Your task to perform on an android device: turn on the 24-hour format for clock Image 0: 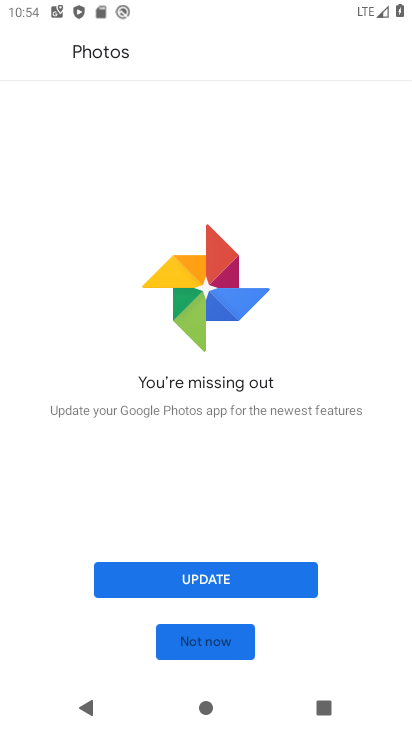
Step 0: press back button
Your task to perform on an android device: turn on the 24-hour format for clock Image 1: 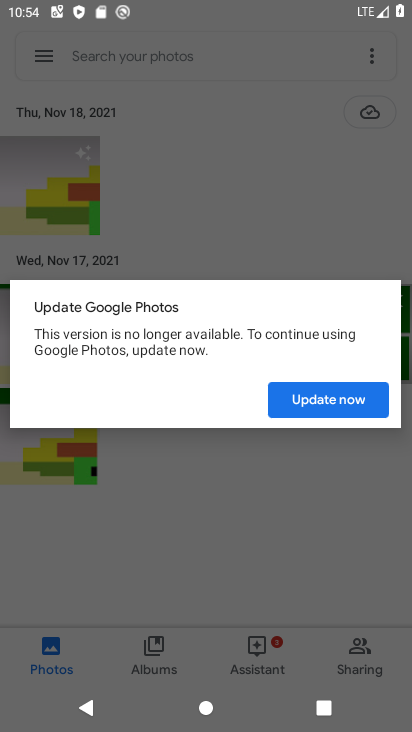
Step 1: press back button
Your task to perform on an android device: turn on the 24-hour format for clock Image 2: 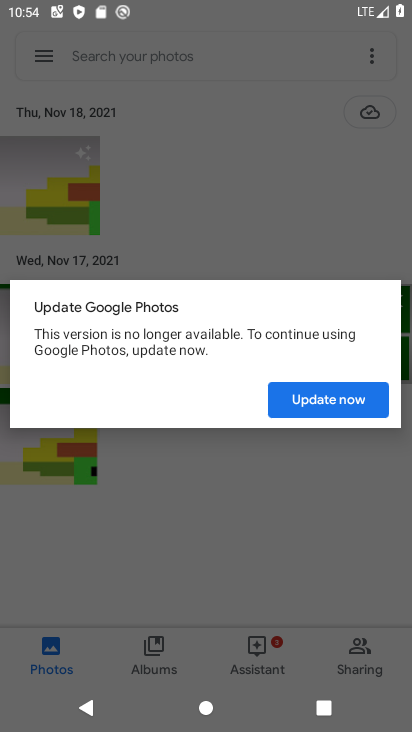
Step 2: press home button
Your task to perform on an android device: turn on the 24-hour format for clock Image 3: 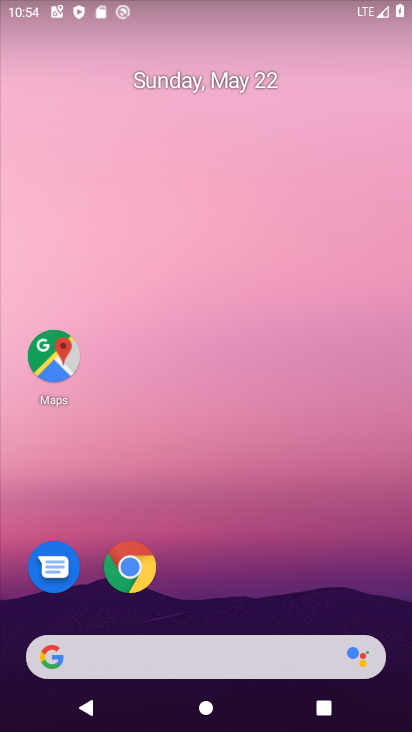
Step 3: drag from (245, 516) to (294, 40)
Your task to perform on an android device: turn on the 24-hour format for clock Image 4: 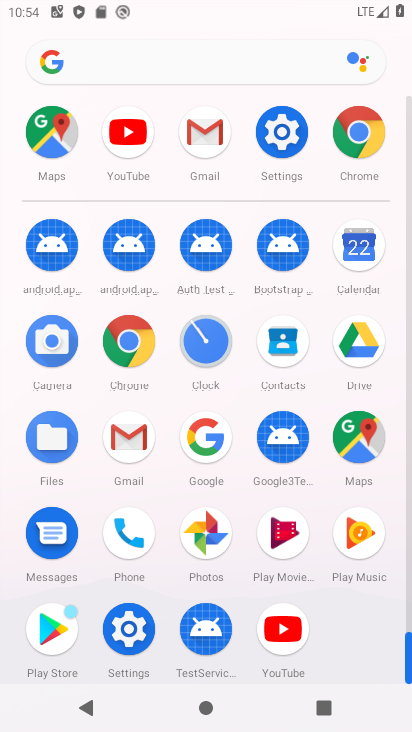
Step 4: click (196, 342)
Your task to perform on an android device: turn on the 24-hour format for clock Image 5: 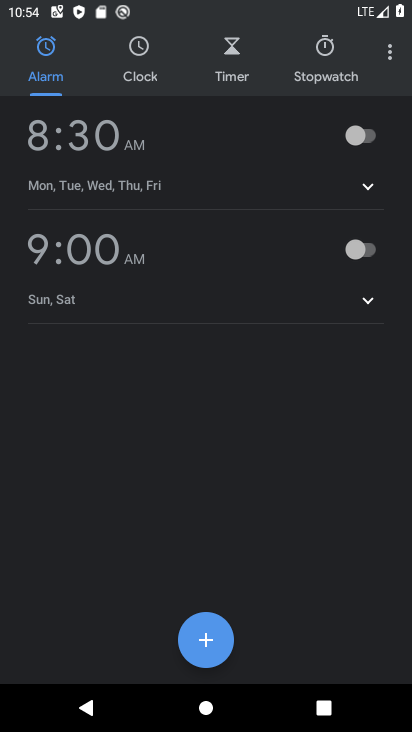
Step 5: drag from (392, 50) to (263, 108)
Your task to perform on an android device: turn on the 24-hour format for clock Image 6: 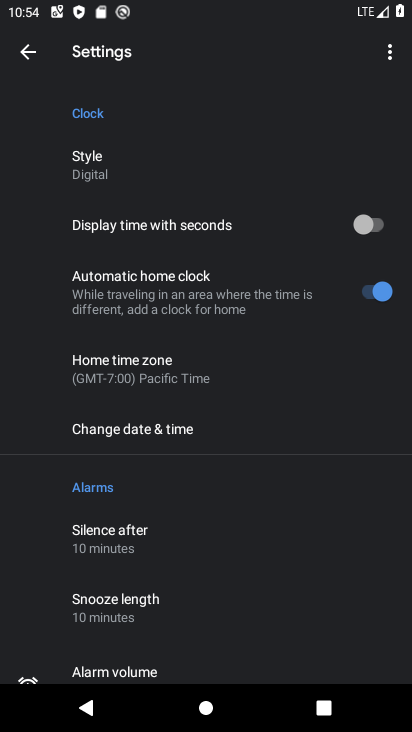
Step 6: click (130, 428)
Your task to perform on an android device: turn on the 24-hour format for clock Image 7: 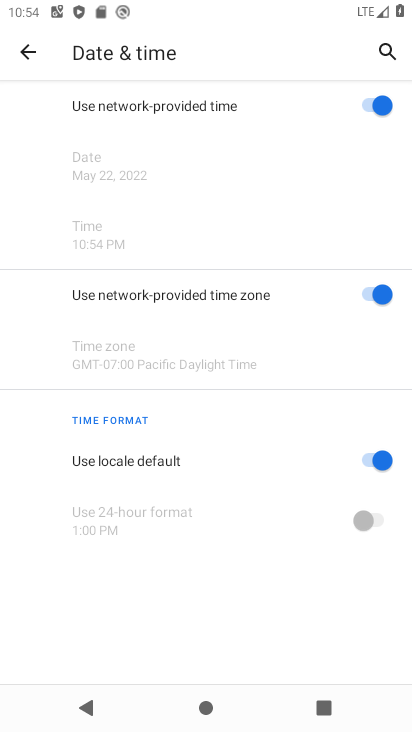
Step 7: click (375, 450)
Your task to perform on an android device: turn on the 24-hour format for clock Image 8: 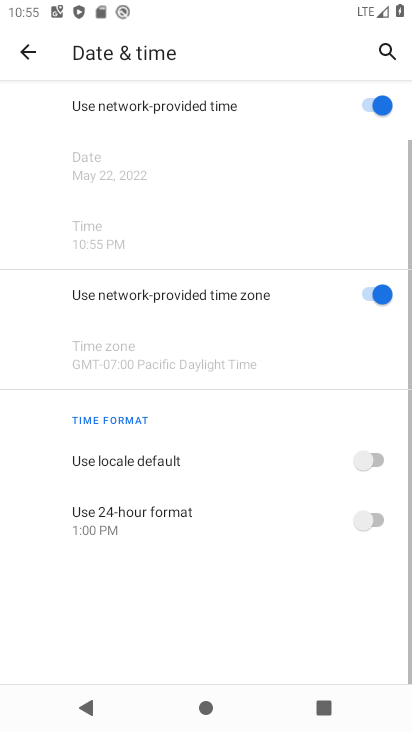
Step 8: click (368, 520)
Your task to perform on an android device: turn on the 24-hour format for clock Image 9: 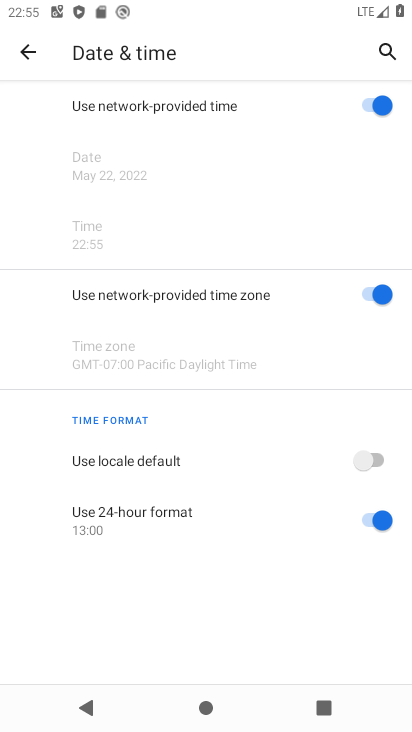
Step 9: task complete